Your task to perform on an android device: turn on improve location accuracy Image 0: 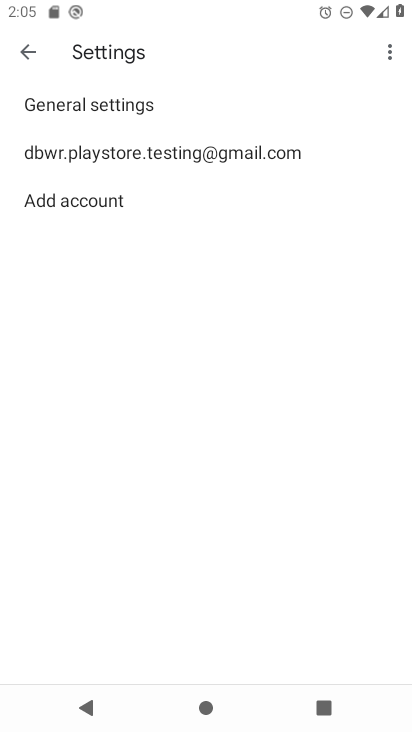
Step 0: press home button
Your task to perform on an android device: turn on improve location accuracy Image 1: 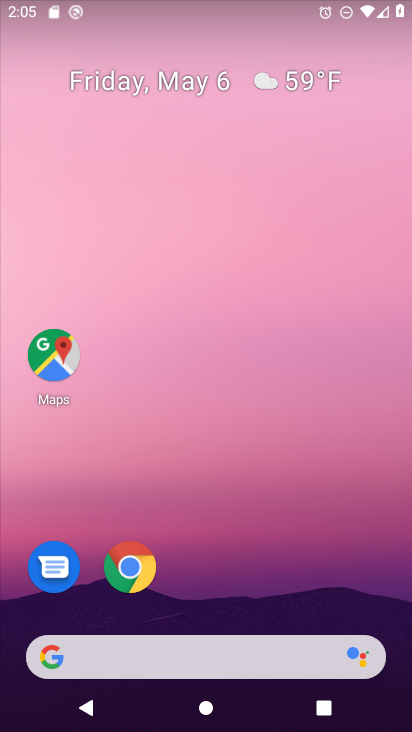
Step 1: drag from (251, 616) to (212, 126)
Your task to perform on an android device: turn on improve location accuracy Image 2: 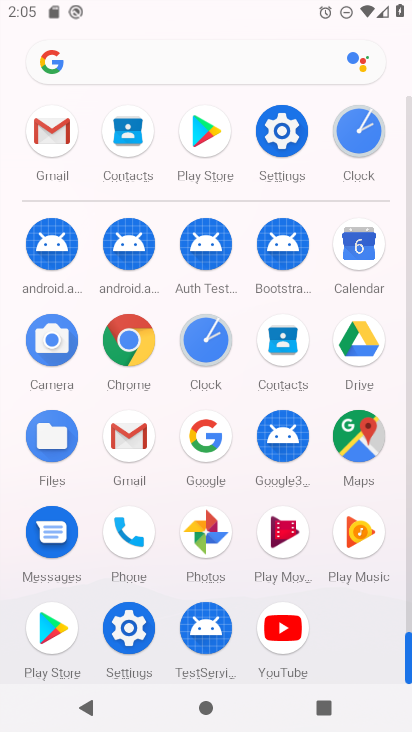
Step 2: click (129, 639)
Your task to perform on an android device: turn on improve location accuracy Image 3: 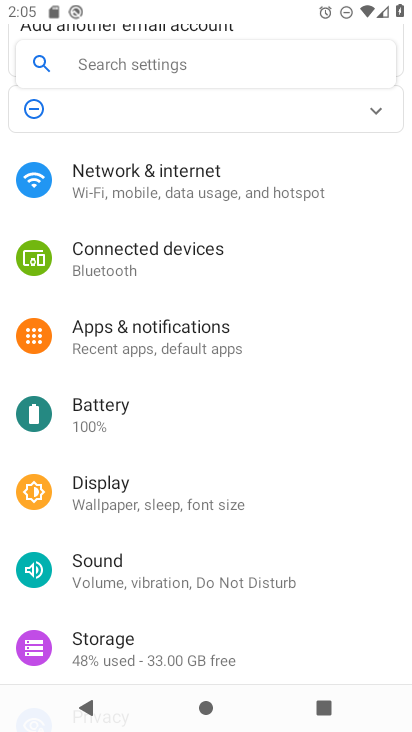
Step 3: drag from (166, 619) to (163, 260)
Your task to perform on an android device: turn on improve location accuracy Image 4: 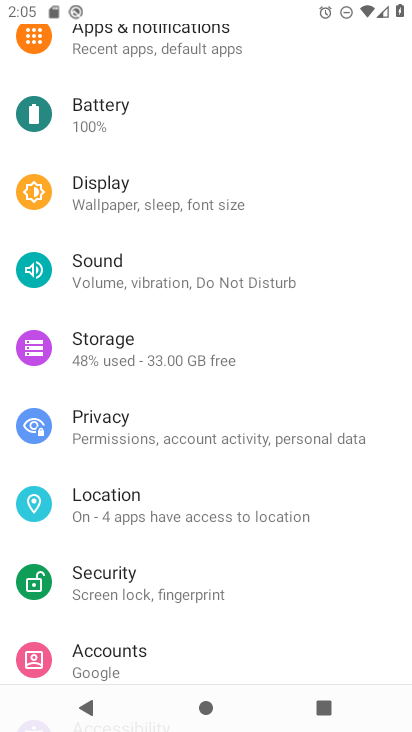
Step 4: click (109, 539)
Your task to perform on an android device: turn on improve location accuracy Image 5: 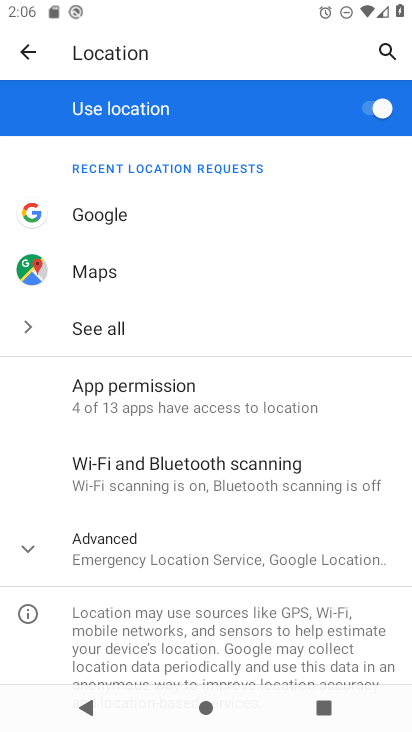
Step 5: drag from (218, 639) to (203, 410)
Your task to perform on an android device: turn on improve location accuracy Image 6: 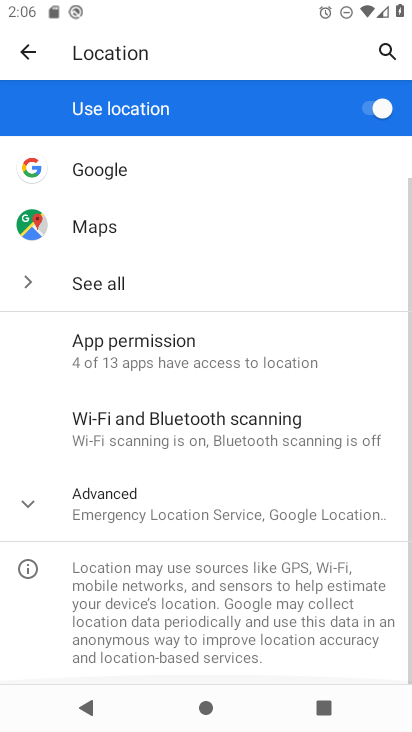
Step 6: click (181, 515)
Your task to perform on an android device: turn on improve location accuracy Image 7: 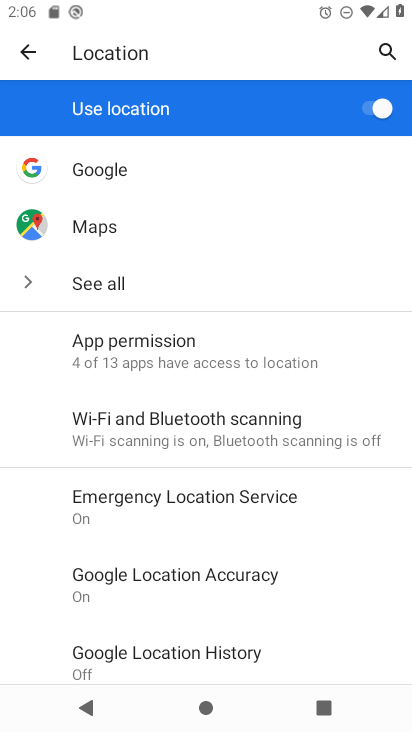
Step 7: click (246, 588)
Your task to perform on an android device: turn on improve location accuracy Image 8: 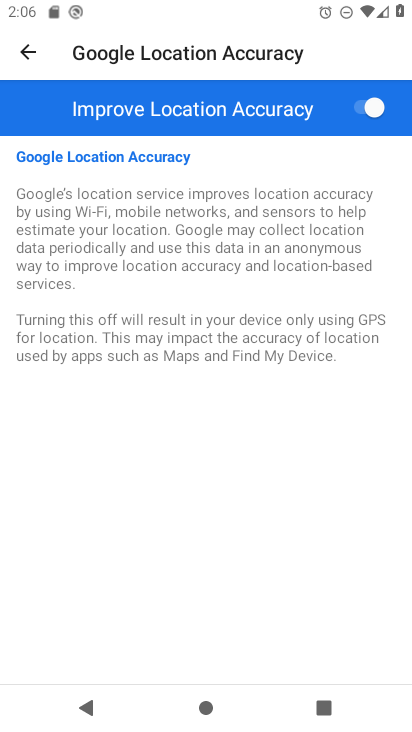
Step 8: task complete